Your task to perform on an android device: Open calendar and show me the fourth week of next month Image 0: 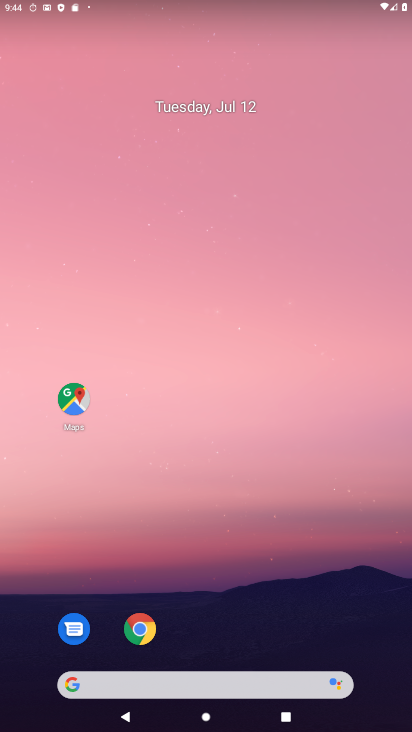
Step 0: drag from (332, 646) to (253, 134)
Your task to perform on an android device: Open calendar and show me the fourth week of next month Image 1: 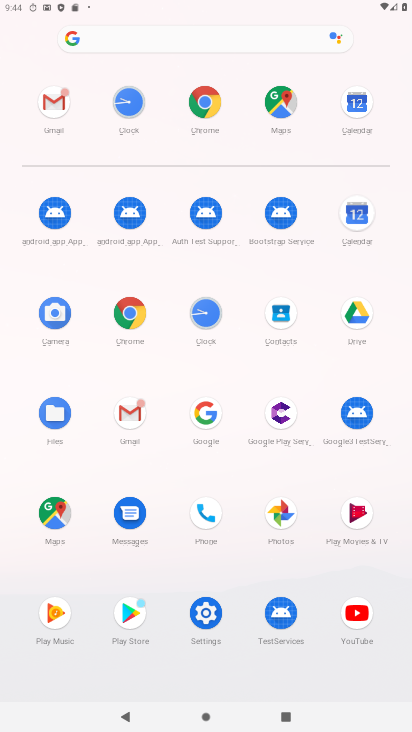
Step 1: click (361, 211)
Your task to perform on an android device: Open calendar and show me the fourth week of next month Image 2: 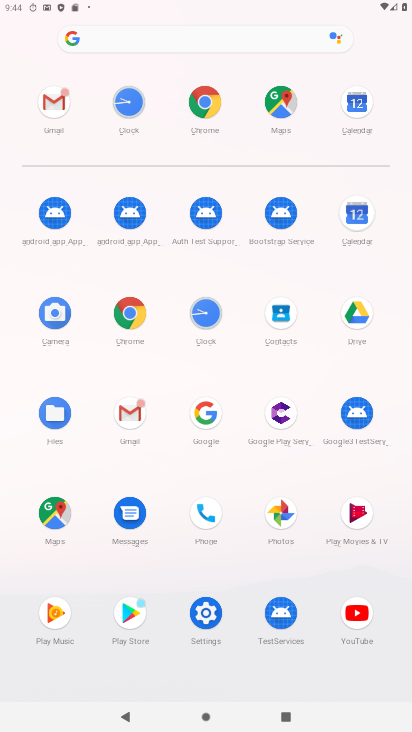
Step 2: click (361, 211)
Your task to perform on an android device: Open calendar and show me the fourth week of next month Image 3: 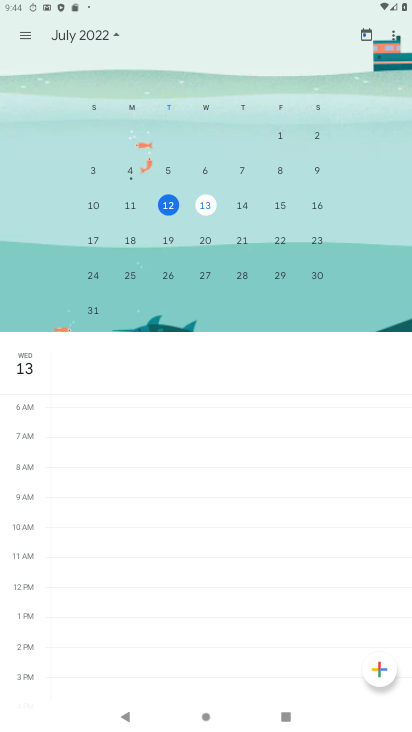
Step 3: drag from (295, 223) to (3, 180)
Your task to perform on an android device: Open calendar and show me the fourth week of next month Image 4: 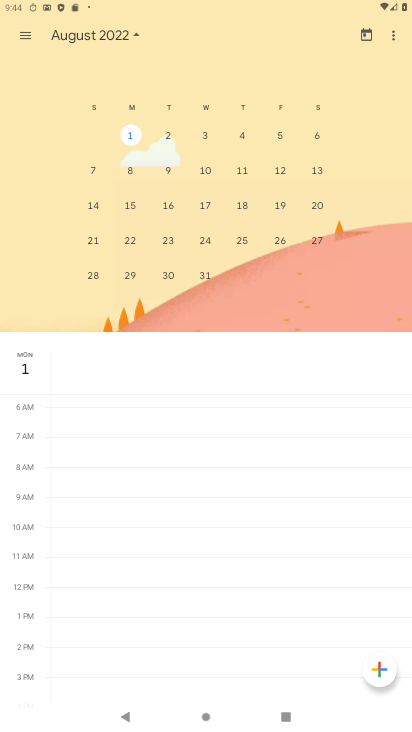
Step 4: click (168, 203)
Your task to perform on an android device: Open calendar and show me the fourth week of next month Image 5: 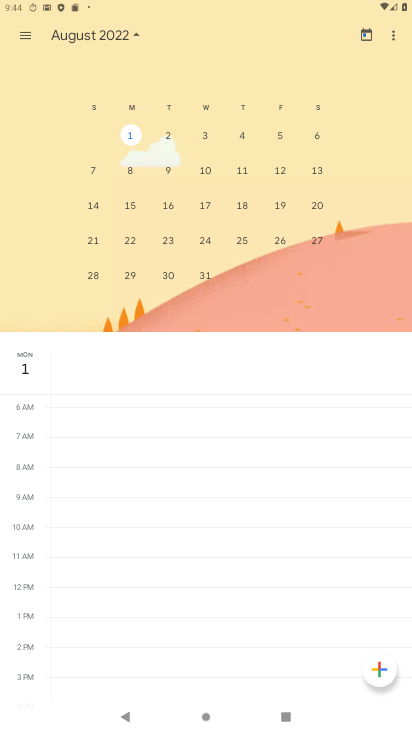
Step 5: click (168, 203)
Your task to perform on an android device: Open calendar and show me the fourth week of next month Image 6: 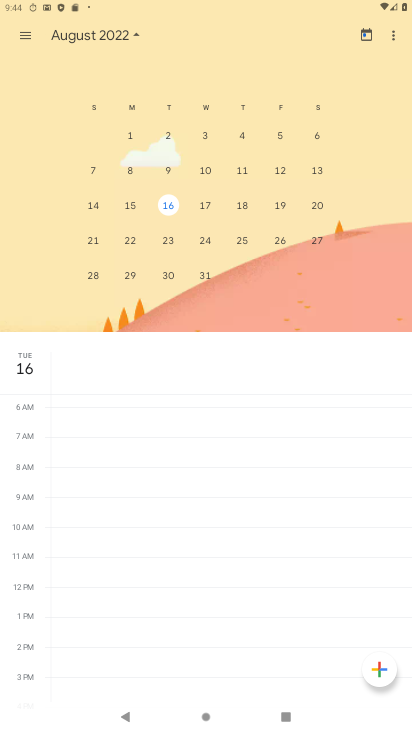
Step 6: click (168, 203)
Your task to perform on an android device: Open calendar and show me the fourth week of next month Image 7: 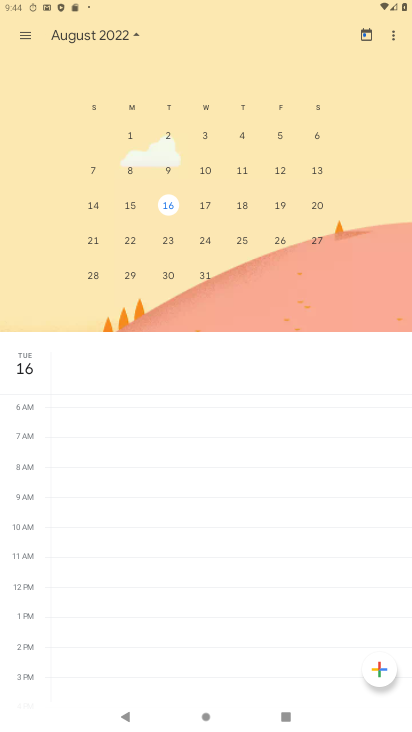
Step 7: click (168, 203)
Your task to perform on an android device: Open calendar and show me the fourth week of next month Image 8: 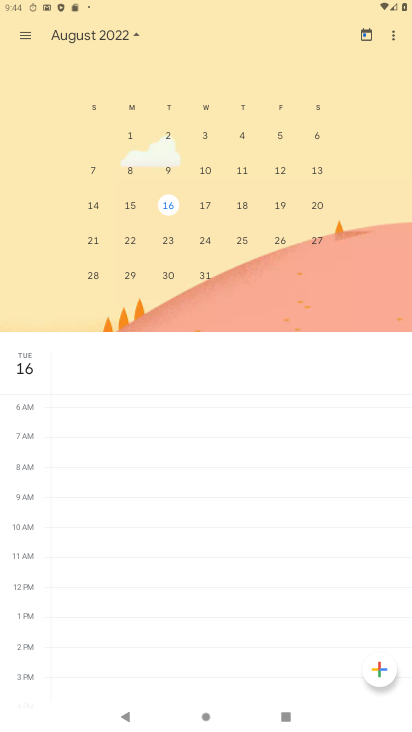
Step 8: task complete